Your task to perform on an android device: read, delete, or share a saved page in the chrome app Image 0: 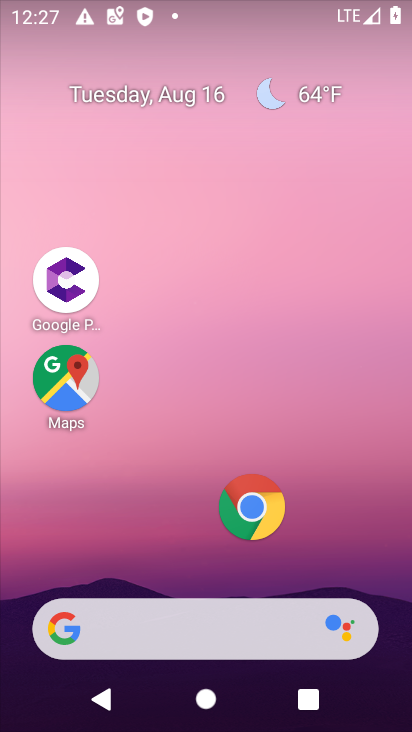
Step 0: click (262, 510)
Your task to perform on an android device: read, delete, or share a saved page in the chrome app Image 1: 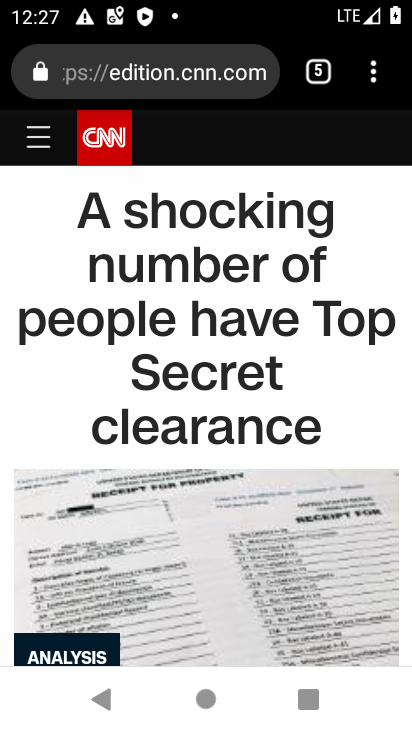
Step 1: click (368, 76)
Your task to perform on an android device: read, delete, or share a saved page in the chrome app Image 2: 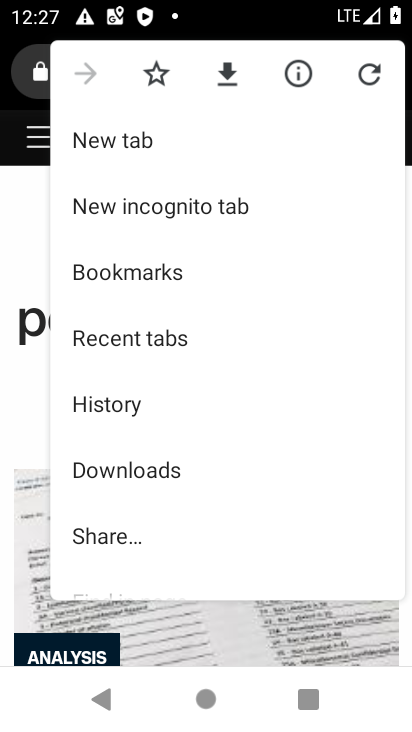
Step 2: click (155, 472)
Your task to perform on an android device: read, delete, or share a saved page in the chrome app Image 3: 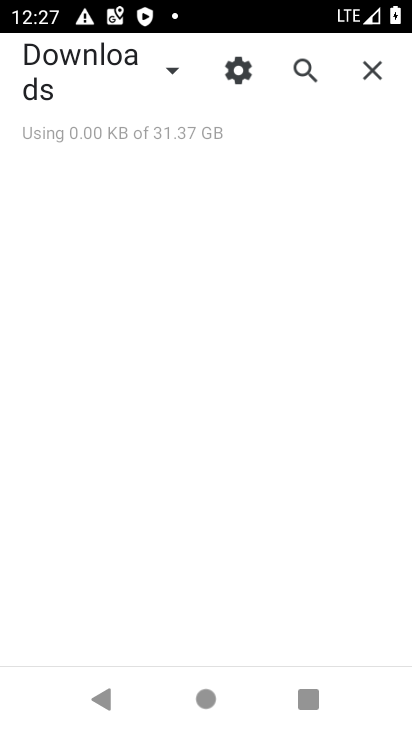
Step 3: task complete